Your task to perform on an android device: turn off javascript in the chrome app Image 0: 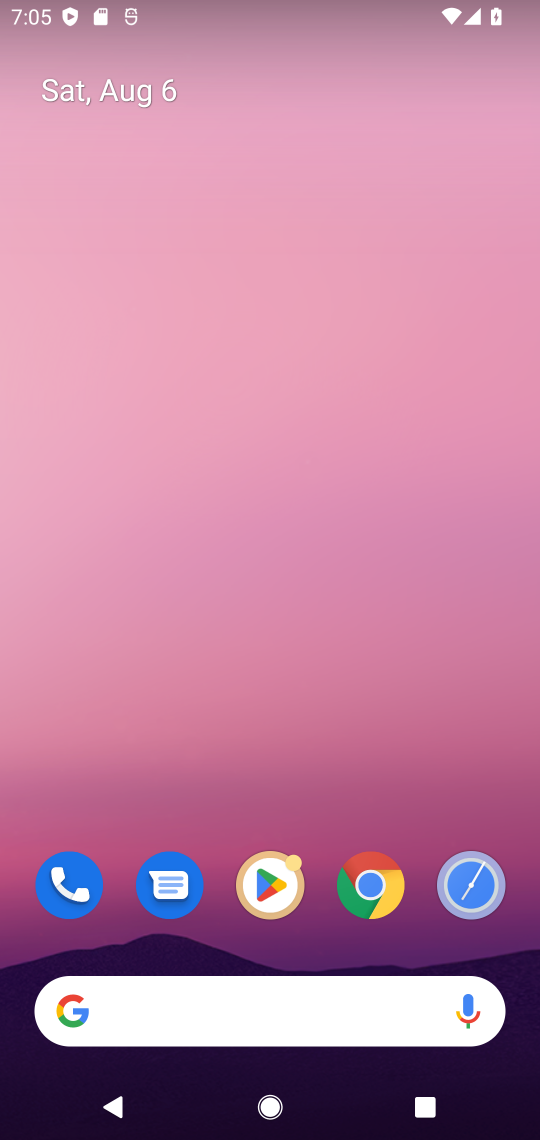
Step 0: drag from (298, 808) to (369, 177)
Your task to perform on an android device: turn off javascript in the chrome app Image 1: 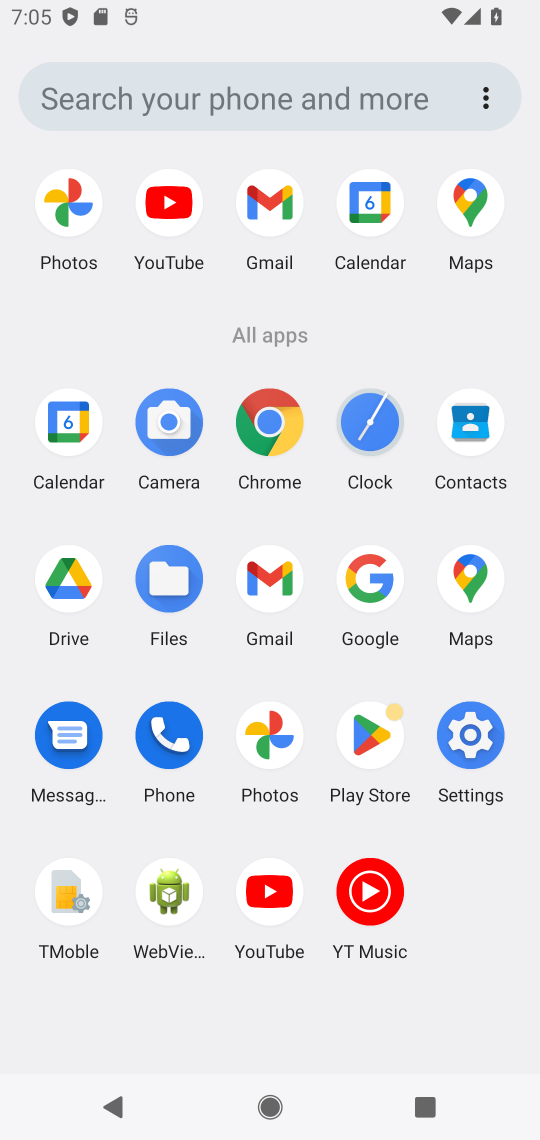
Step 1: click (290, 426)
Your task to perform on an android device: turn off javascript in the chrome app Image 2: 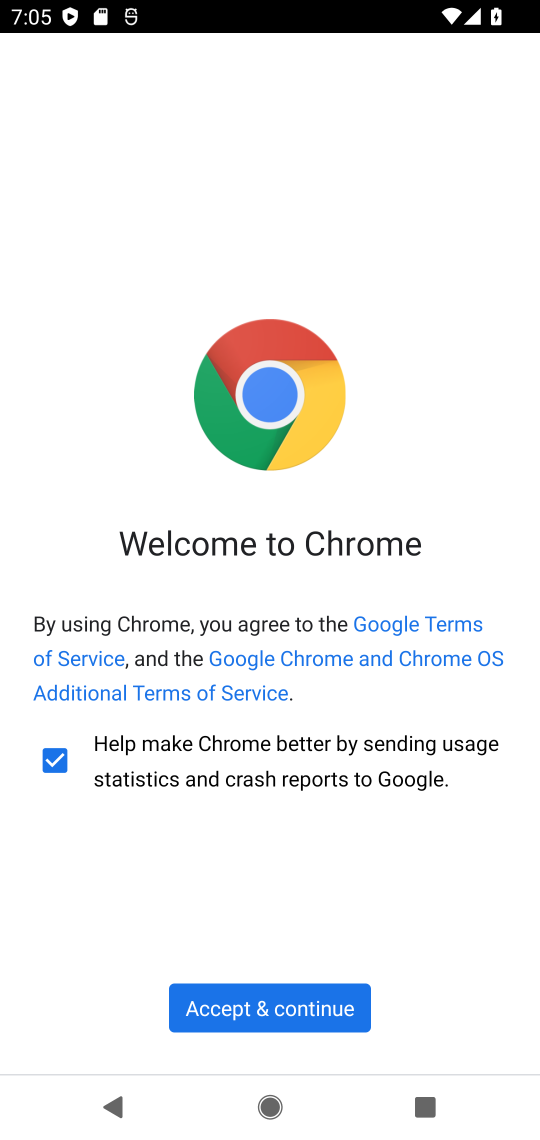
Step 2: click (322, 1007)
Your task to perform on an android device: turn off javascript in the chrome app Image 3: 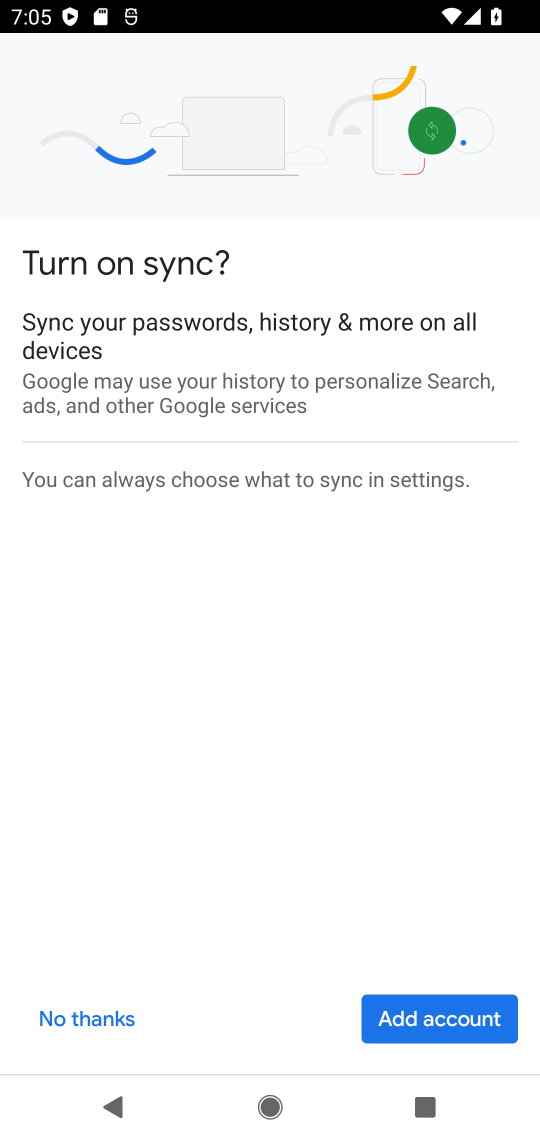
Step 3: click (95, 1022)
Your task to perform on an android device: turn off javascript in the chrome app Image 4: 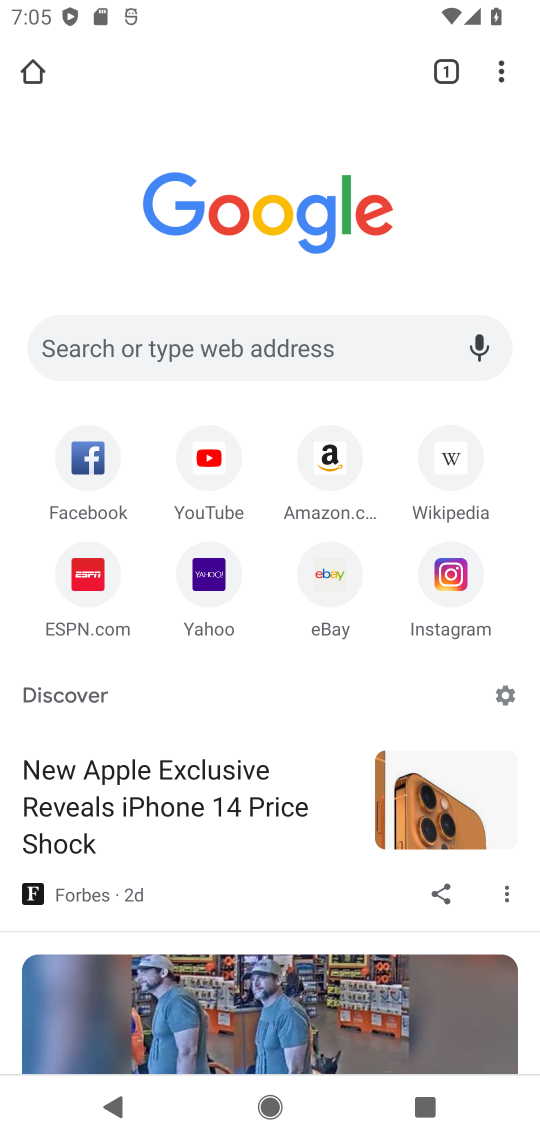
Step 4: drag from (509, 78) to (324, 641)
Your task to perform on an android device: turn off javascript in the chrome app Image 5: 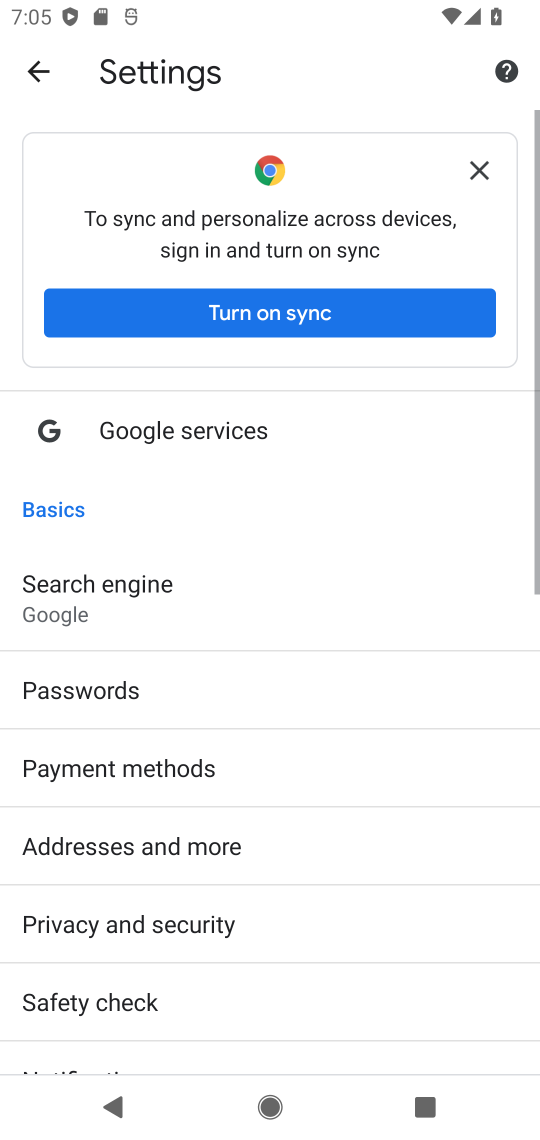
Step 5: drag from (287, 930) to (362, 195)
Your task to perform on an android device: turn off javascript in the chrome app Image 6: 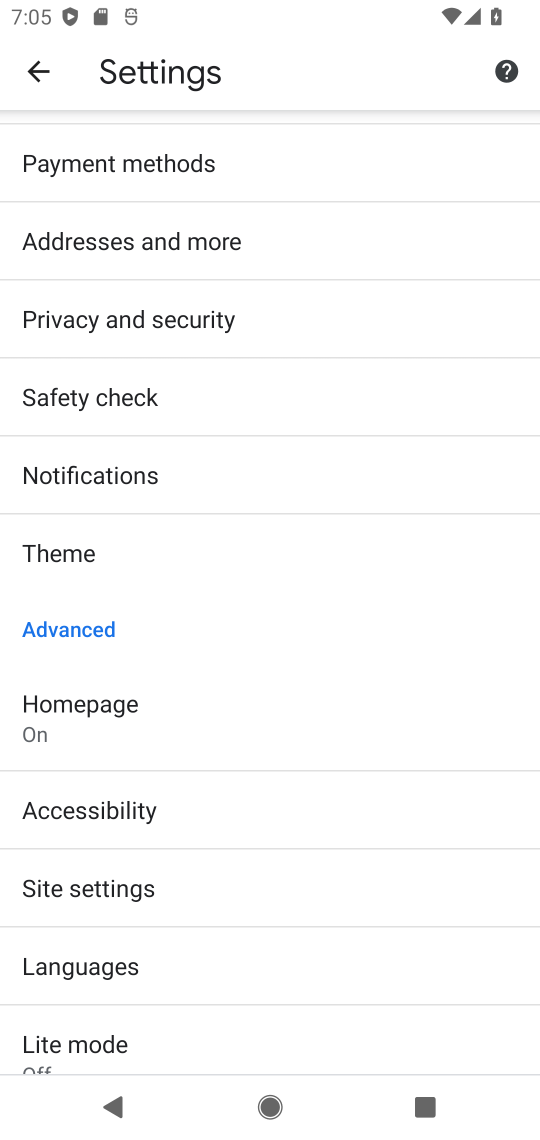
Step 6: click (100, 900)
Your task to perform on an android device: turn off javascript in the chrome app Image 7: 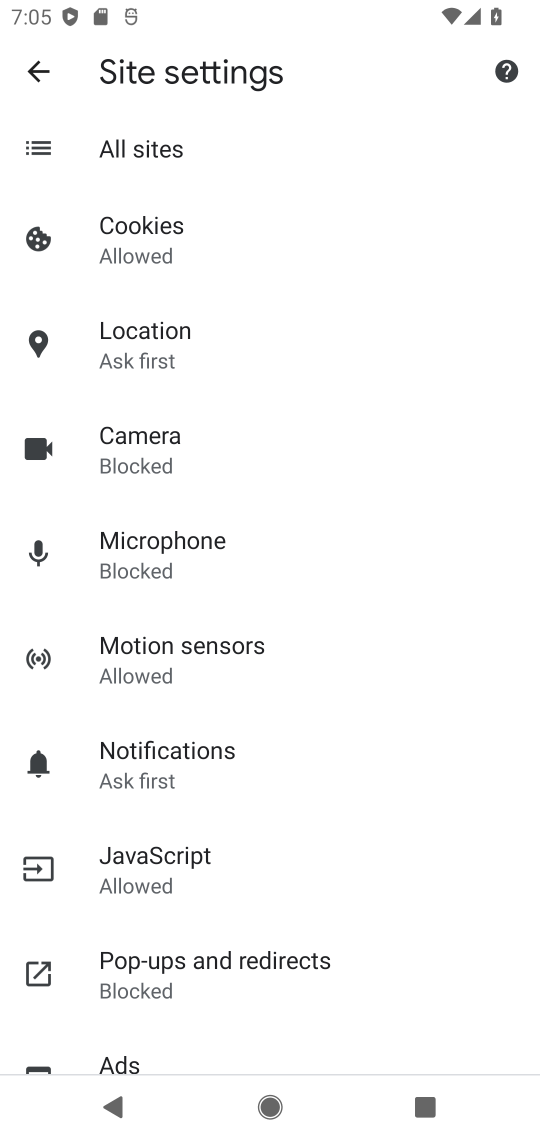
Step 7: click (174, 865)
Your task to perform on an android device: turn off javascript in the chrome app Image 8: 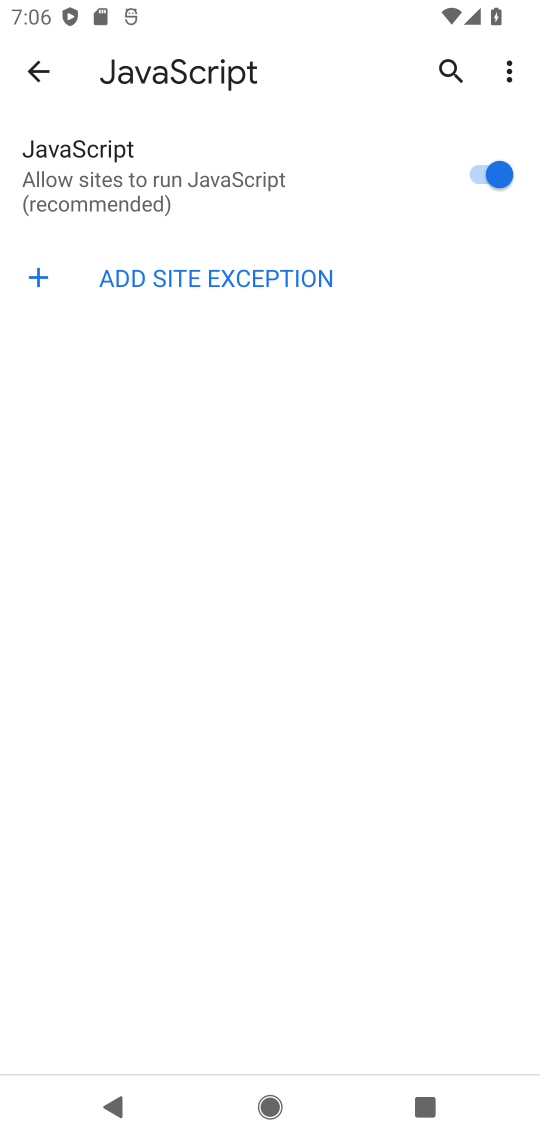
Step 8: click (500, 177)
Your task to perform on an android device: turn off javascript in the chrome app Image 9: 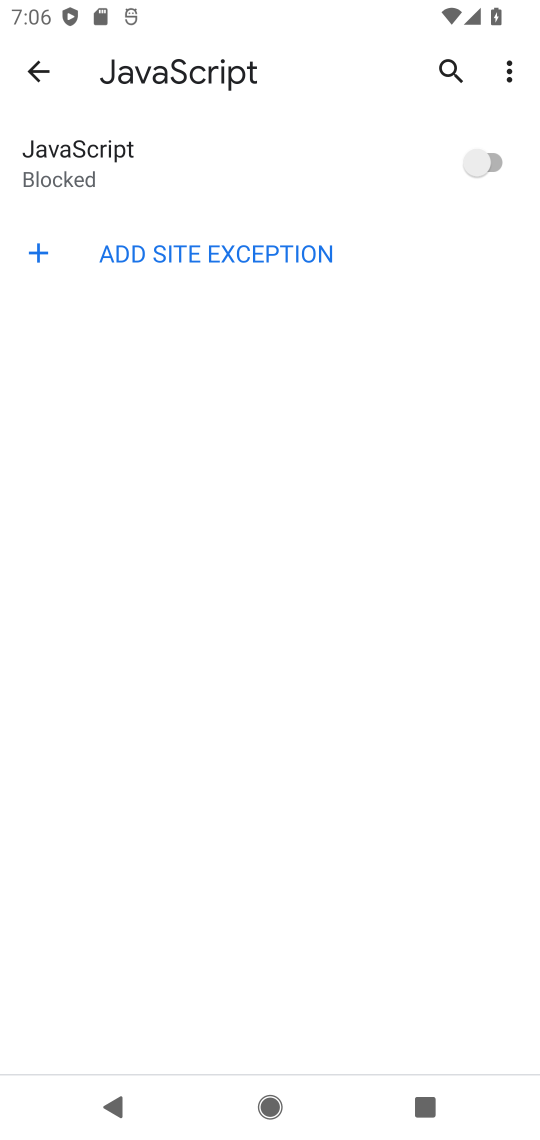
Step 9: task complete